Your task to perform on an android device: turn on notifications settings in the gmail app Image 0: 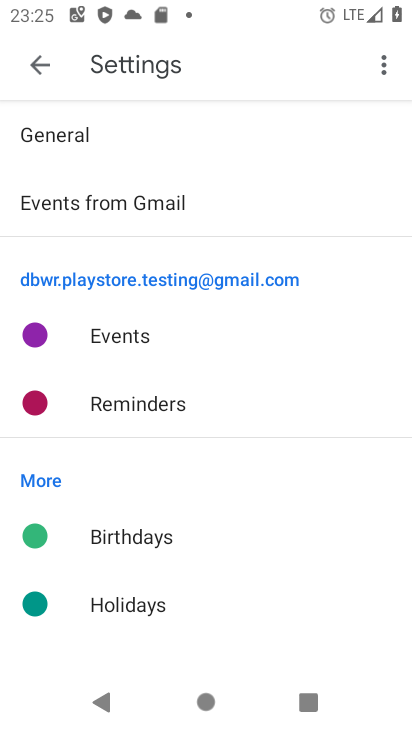
Step 0: press home button
Your task to perform on an android device: turn on notifications settings in the gmail app Image 1: 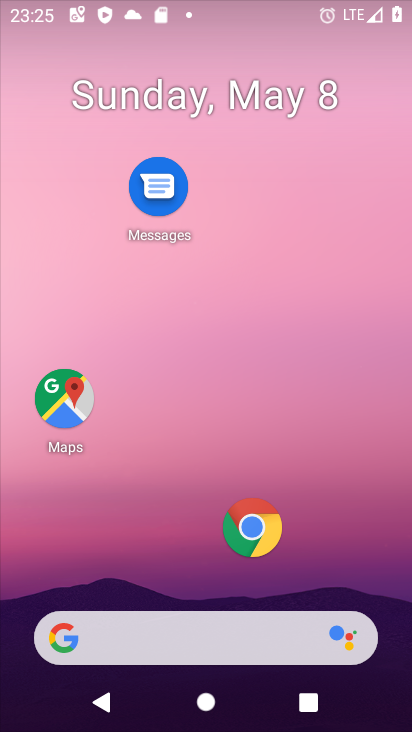
Step 1: drag from (177, 561) to (238, 55)
Your task to perform on an android device: turn on notifications settings in the gmail app Image 2: 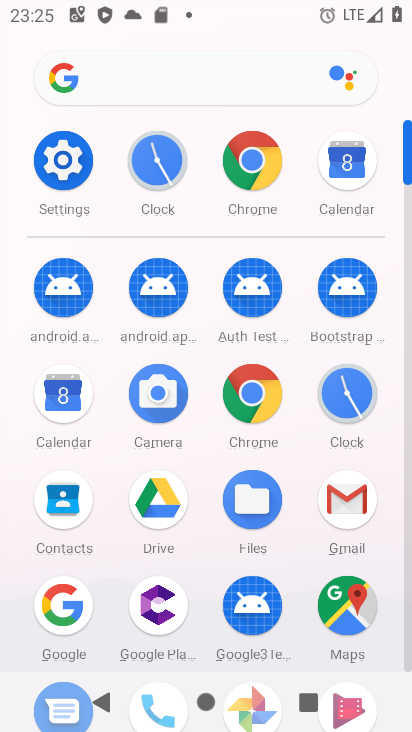
Step 2: click (344, 505)
Your task to perform on an android device: turn on notifications settings in the gmail app Image 3: 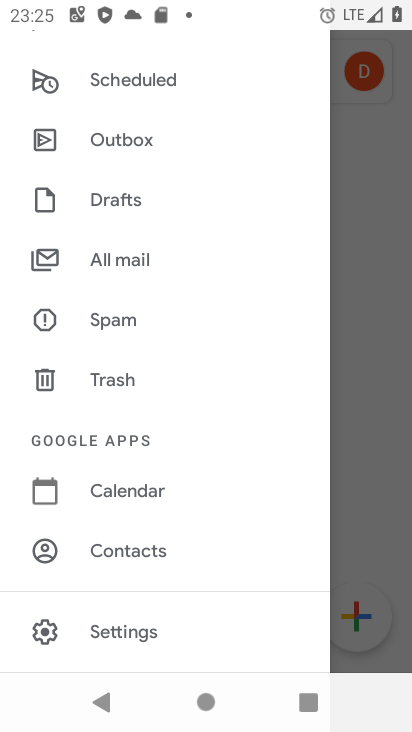
Step 3: click (128, 623)
Your task to perform on an android device: turn on notifications settings in the gmail app Image 4: 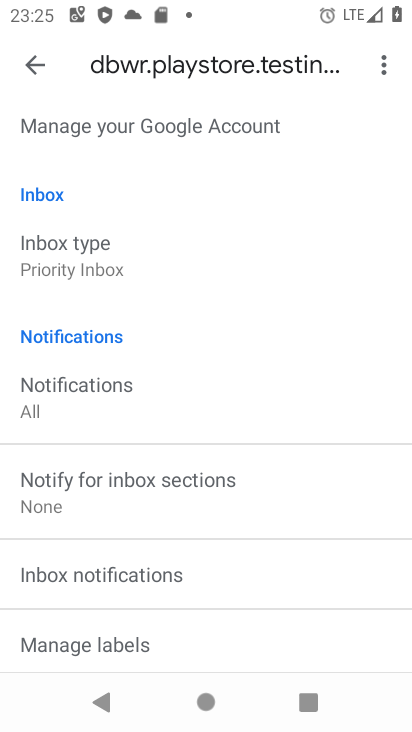
Step 4: click (109, 397)
Your task to perform on an android device: turn on notifications settings in the gmail app Image 5: 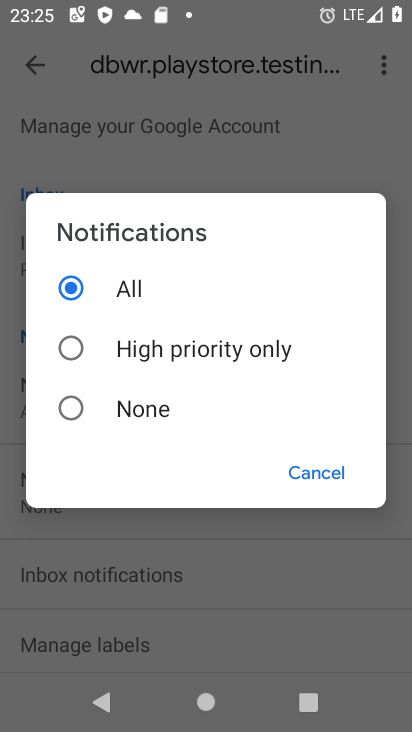
Step 5: task complete